Your task to perform on an android device: Show me productivity apps on the Play Store Image 0: 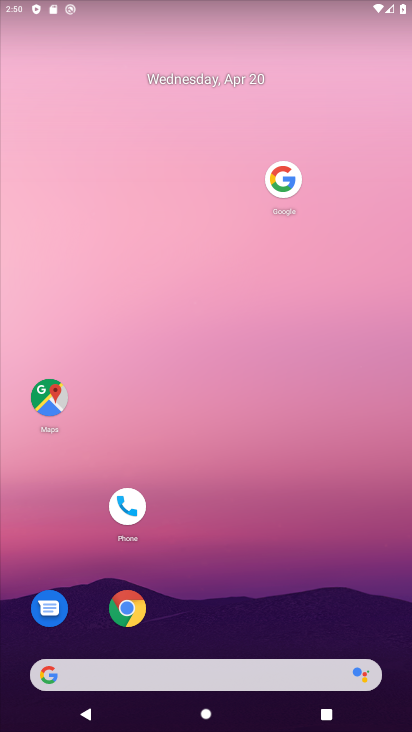
Step 0: drag from (214, 618) to (232, 61)
Your task to perform on an android device: Show me productivity apps on the Play Store Image 1: 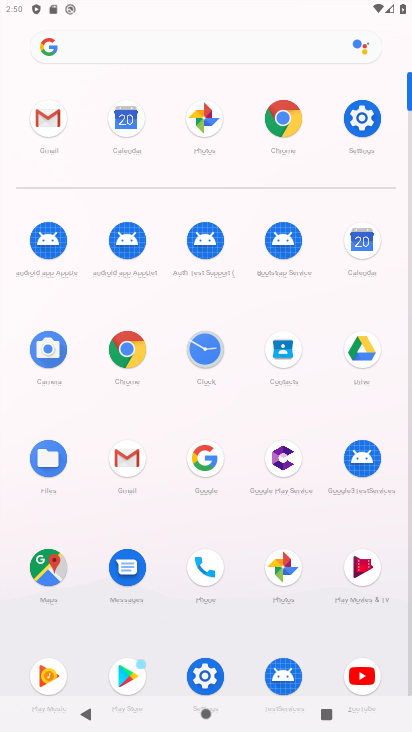
Step 1: click (126, 674)
Your task to perform on an android device: Show me productivity apps on the Play Store Image 2: 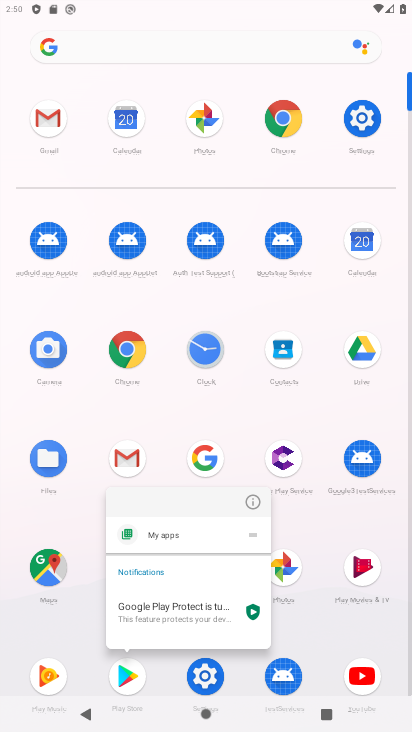
Step 2: click (119, 686)
Your task to perform on an android device: Show me productivity apps on the Play Store Image 3: 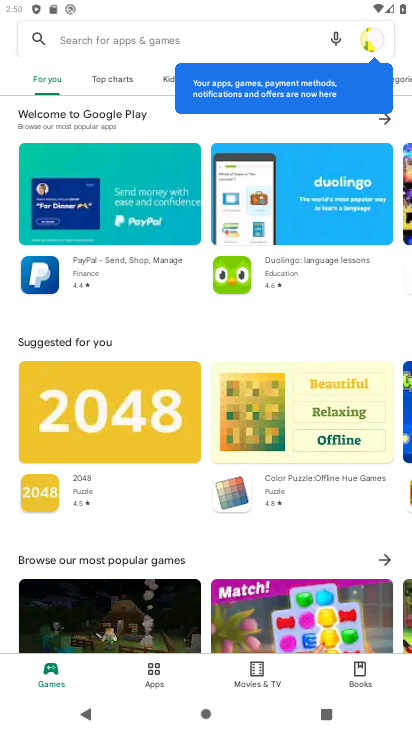
Step 3: click (170, 116)
Your task to perform on an android device: Show me productivity apps on the Play Store Image 4: 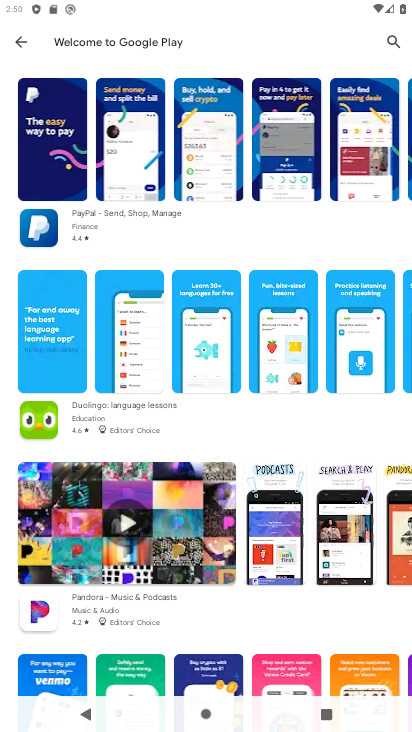
Step 4: click (16, 38)
Your task to perform on an android device: Show me productivity apps on the Play Store Image 5: 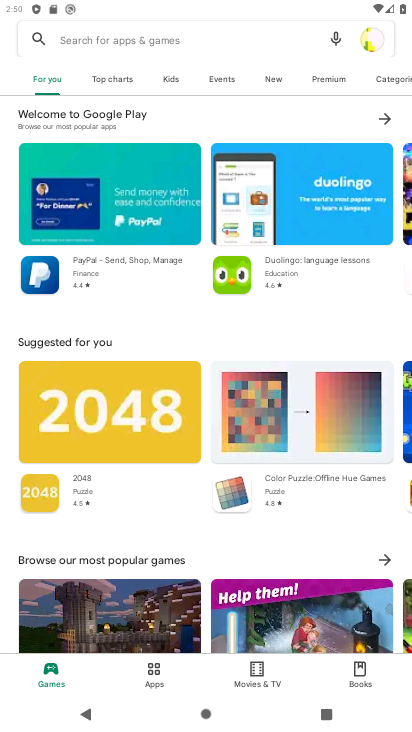
Step 5: click (332, 79)
Your task to perform on an android device: Show me productivity apps on the Play Store Image 6: 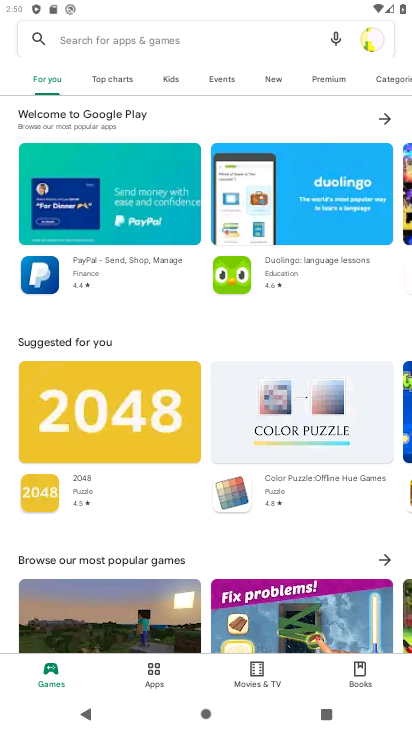
Step 6: drag from (147, 315) to (266, 37)
Your task to perform on an android device: Show me productivity apps on the Play Store Image 7: 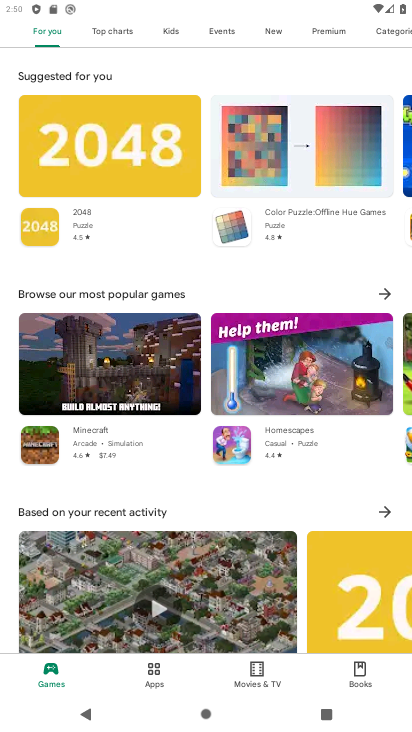
Step 7: drag from (153, 483) to (269, 147)
Your task to perform on an android device: Show me productivity apps on the Play Store Image 8: 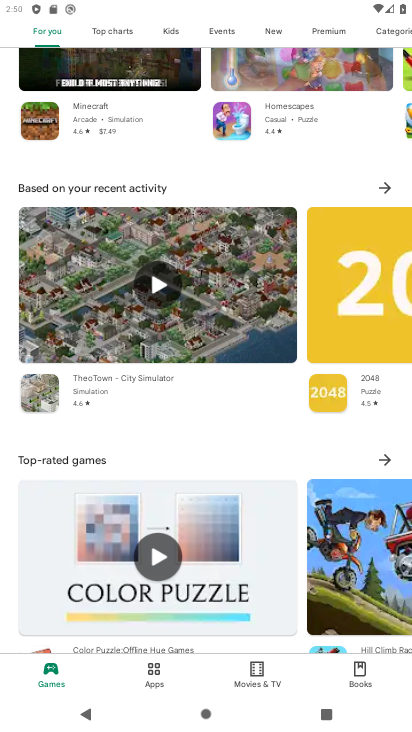
Step 8: drag from (182, 423) to (253, 146)
Your task to perform on an android device: Show me productivity apps on the Play Store Image 9: 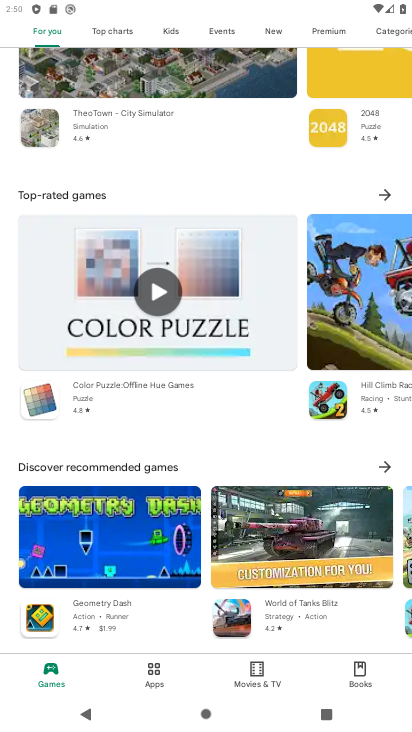
Step 9: drag from (223, 334) to (253, 233)
Your task to perform on an android device: Show me productivity apps on the Play Store Image 10: 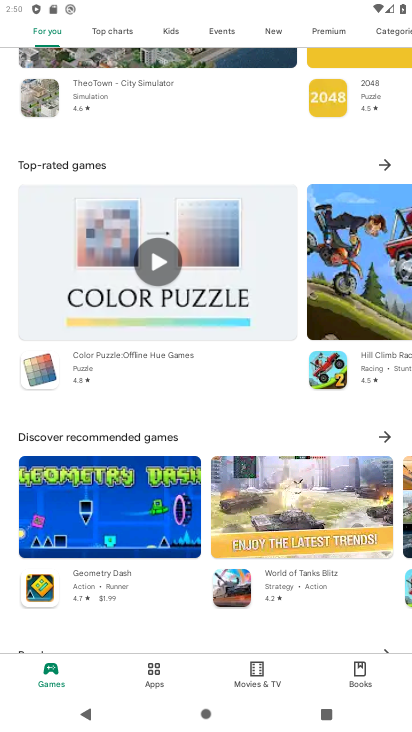
Step 10: drag from (114, 626) to (177, 343)
Your task to perform on an android device: Show me productivity apps on the Play Store Image 11: 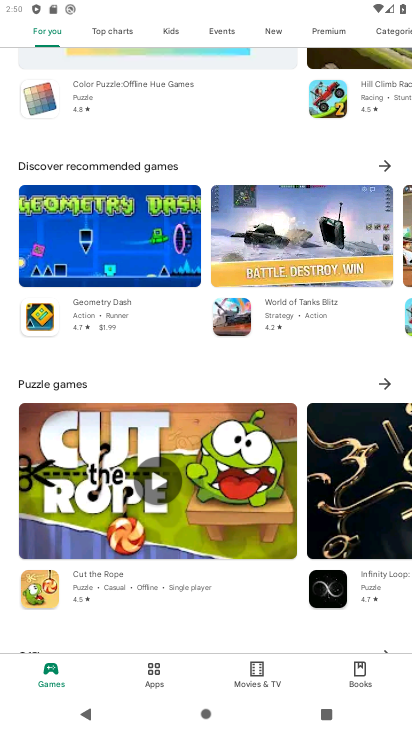
Step 11: drag from (149, 612) to (224, 277)
Your task to perform on an android device: Show me productivity apps on the Play Store Image 12: 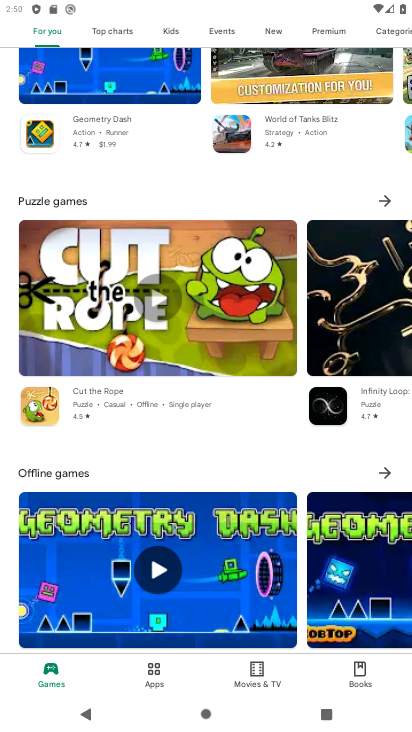
Step 12: drag from (217, 446) to (253, 188)
Your task to perform on an android device: Show me productivity apps on the Play Store Image 13: 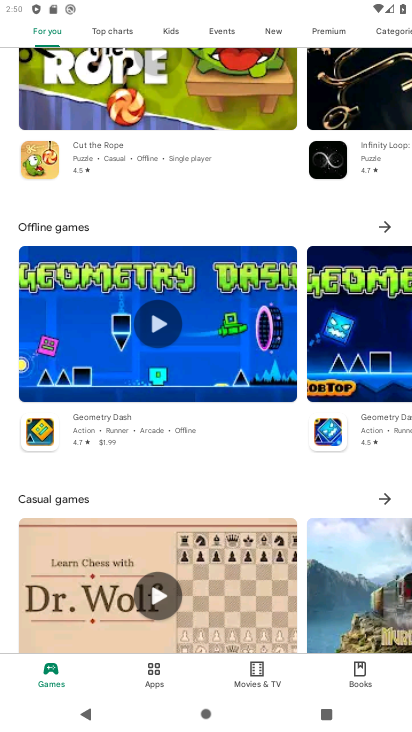
Step 13: drag from (190, 487) to (248, 132)
Your task to perform on an android device: Show me productivity apps on the Play Store Image 14: 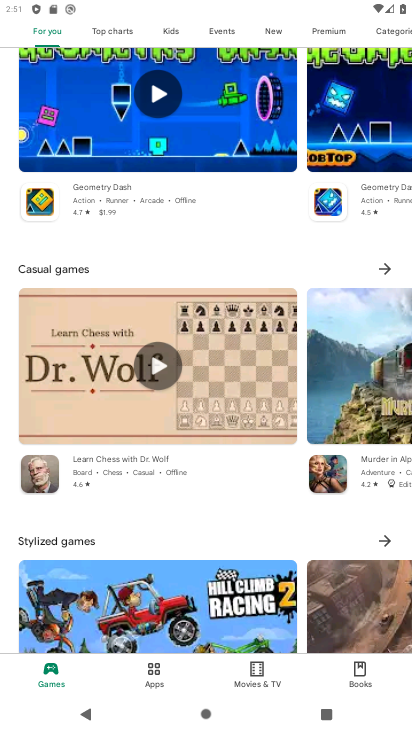
Step 14: drag from (112, 536) to (197, 215)
Your task to perform on an android device: Show me productivity apps on the Play Store Image 15: 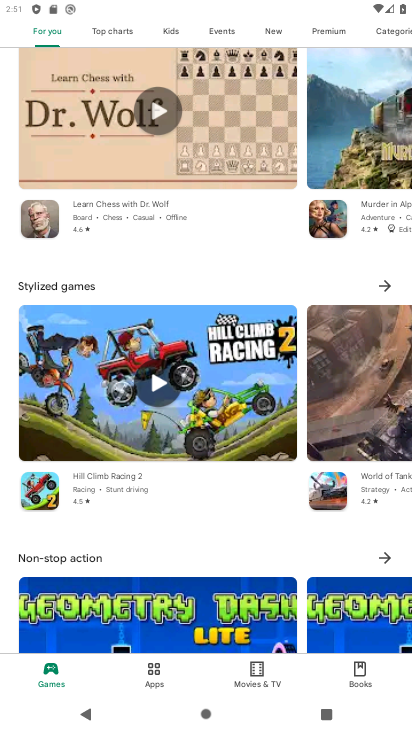
Step 15: drag from (170, 540) to (251, 203)
Your task to perform on an android device: Show me productivity apps on the Play Store Image 16: 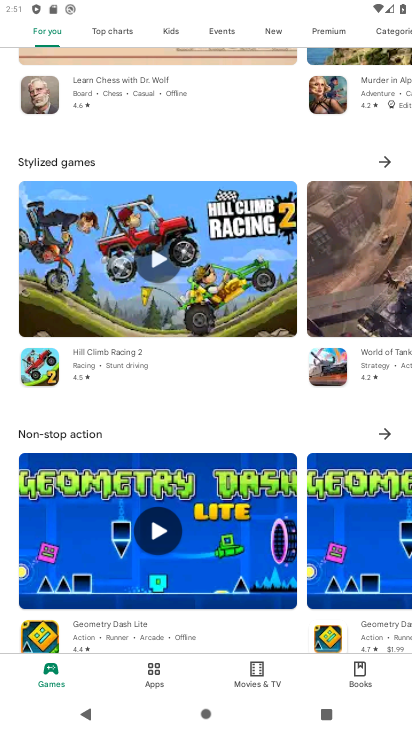
Step 16: drag from (218, 646) to (213, 273)
Your task to perform on an android device: Show me productivity apps on the Play Store Image 17: 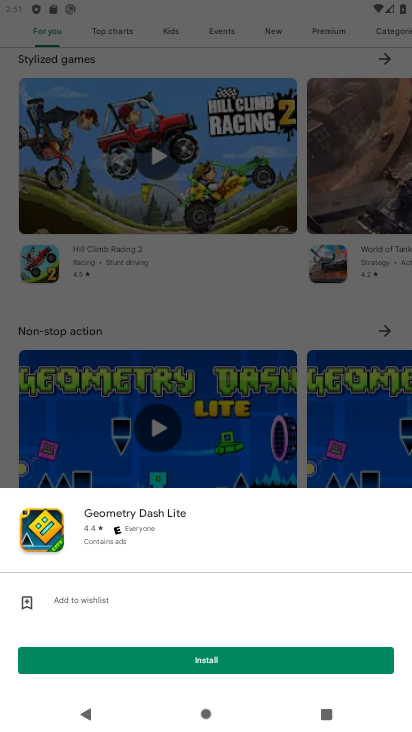
Step 17: click (215, 294)
Your task to perform on an android device: Show me productivity apps on the Play Store Image 18: 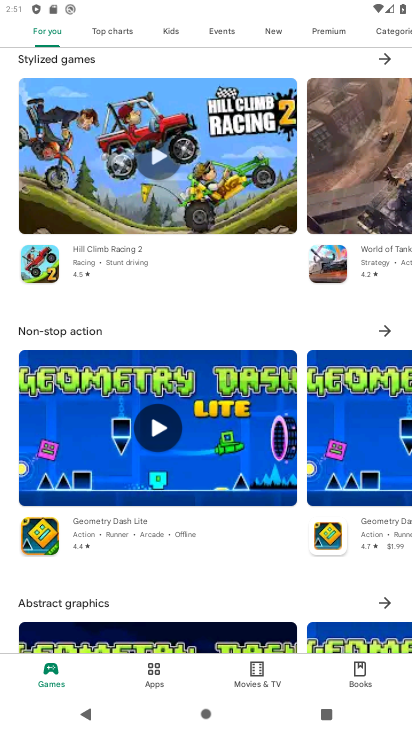
Step 18: drag from (183, 595) to (199, 247)
Your task to perform on an android device: Show me productivity apps on the Play Store Image 19: 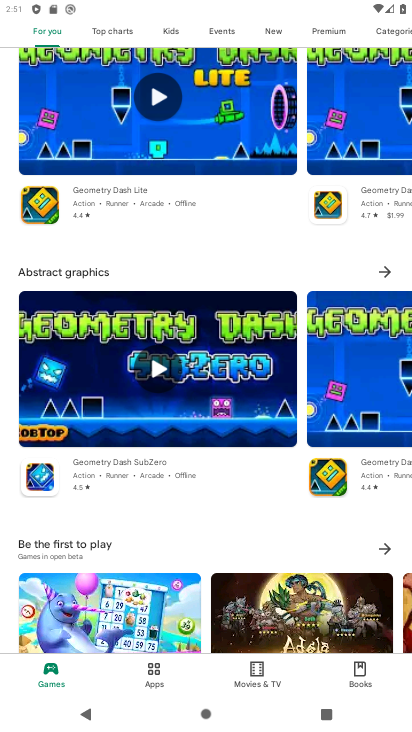
Step 19: drag from (186, 543) to (190, 216)
Your task to perform on an android device: Show me productivity apps on the Play Store Image 20: 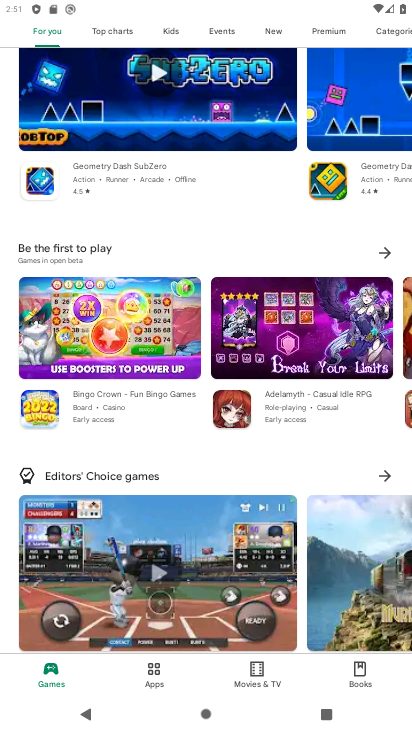
Step 20: drag from (226, 470) to (164, 668)
Your task to perform on an android device: Show me productivity apps on the Play Store Image 21: 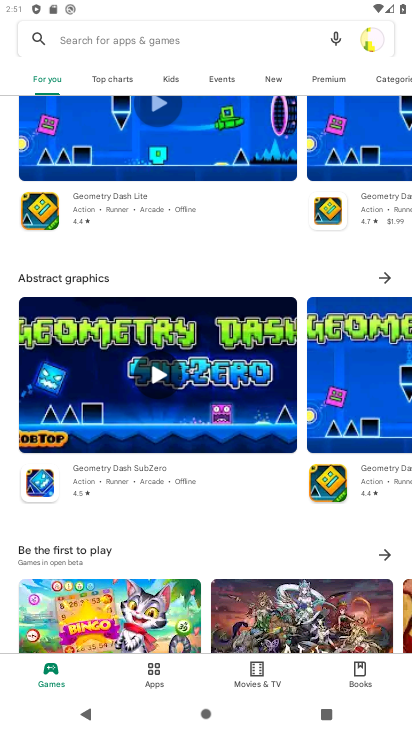
Step 21: drag from (223, 268) to (140, 600)
Your task to perform on an android device: Show me productivity apps on the Play Store Image 22: 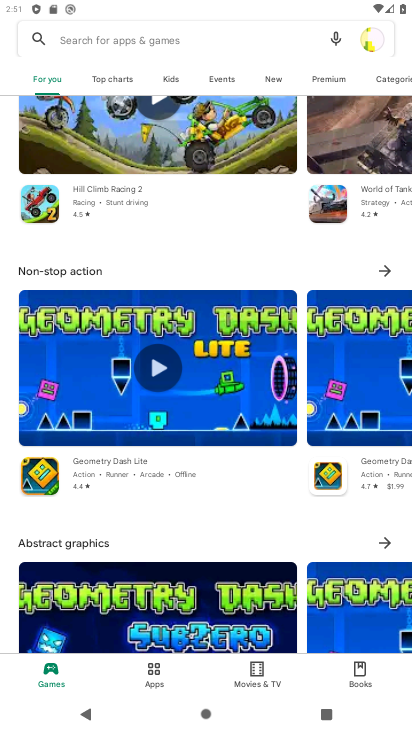
Step 22: drag from (196, 269) to (91, 604)
Your task to perform on an android device: Show me productivity apps on the Play Store Image 23: 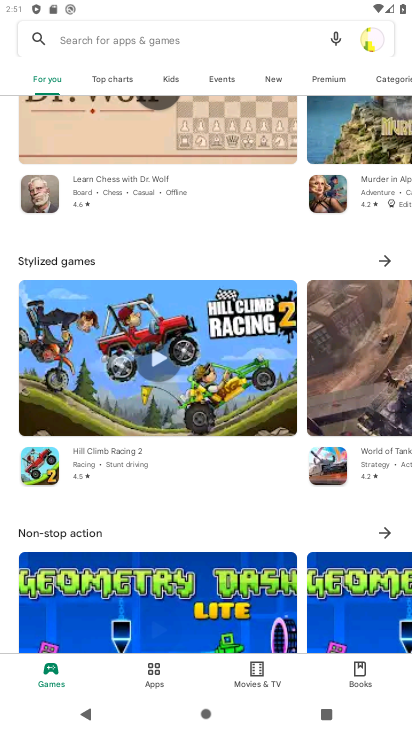
Step 23: drag from (210, 301) to (217, 697)
Your task to perform on an android device: Show me productivity apps on the Play Store Image 24: 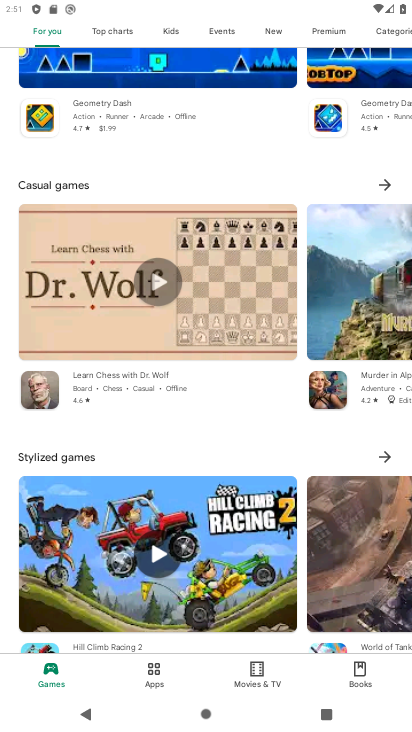
Step 24: drag from (225, 163) to (172, 569)
Your task to perform on an android device: Show me productivity apps on the Play Store Image 25: 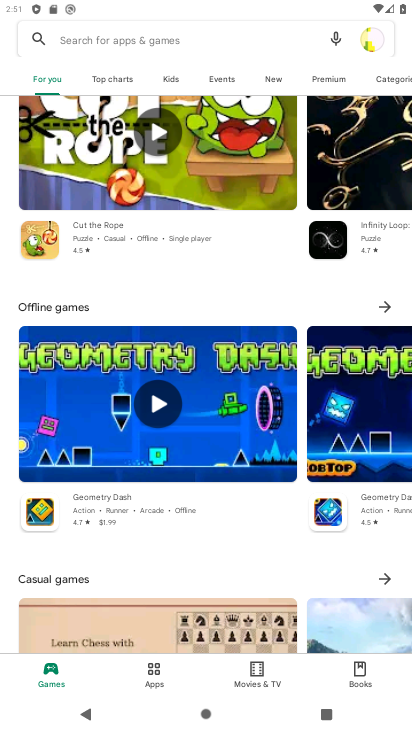
Step 25: drag from (201, 278) to (196, 730)
Your task to perform on an android device: Show me productivity apps on the Play Store Image 26: 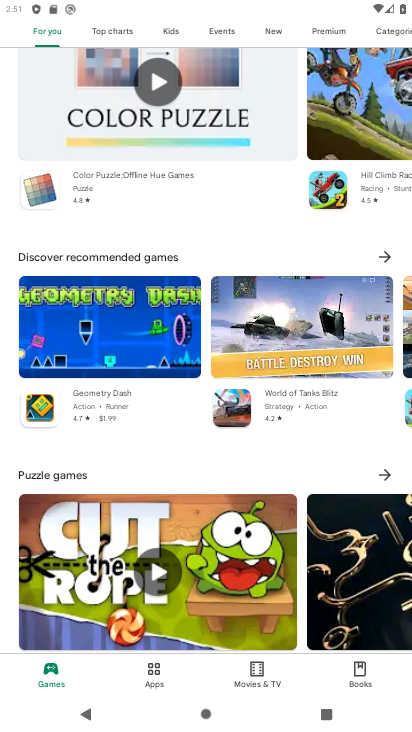
Step 26: drag from (232, 264) to (225, 662)
Your task to perform on an android device: Show me productivity apps on the Play Store Image 27: 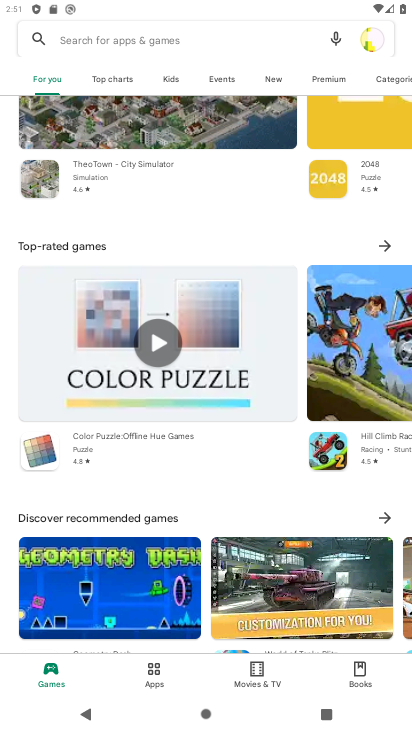
Step 27: click (391, 77)
Your task to perform on an android device: Show me productivity apps on the Play Store Image 28: 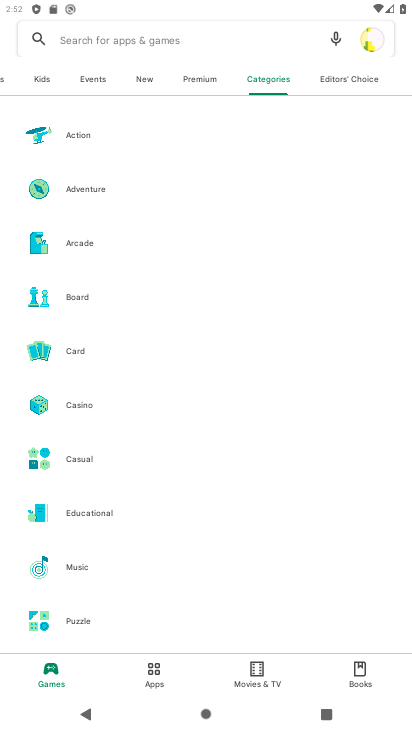
Step 28: click (351, 80)
Your task to perform on an android device: Show me productivity apps on the Play Store Image 29: 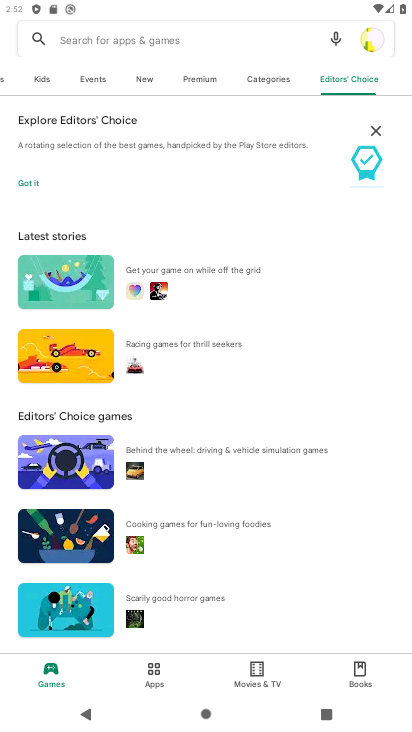
Step 29: click (284, 76)
Your task to perform on an android device: Show me productivity apps on the Play Store Image 30: 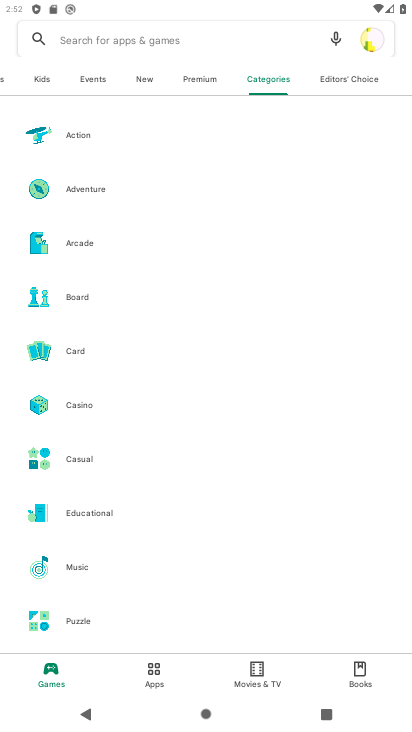
Step 30: click (91, 182)
Your task to perform on an android device: Show me productivity apps on the Play Store Image 31: 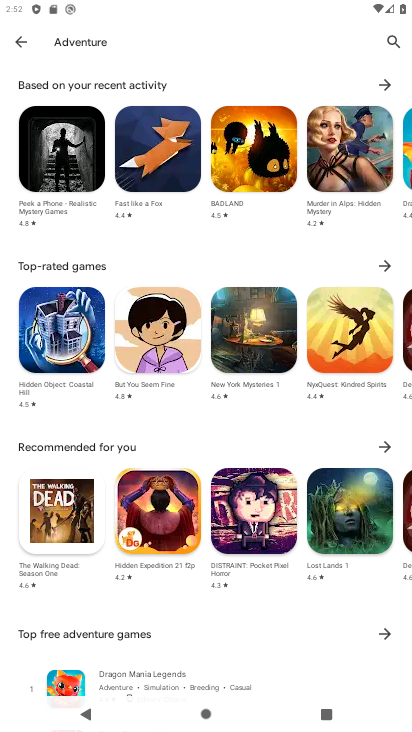
Step 31: click (24, 42)
Your task to perform on an android device: Show me productivity apps on the Play Store Image 32: 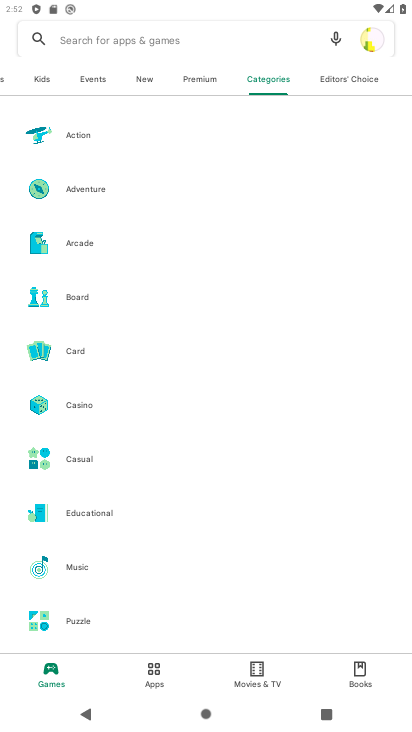
Step 32: drag from (55, 86) to (363, 82)
Your task to perform on an android device: Show me productivity apps on the Play Store Image 33: 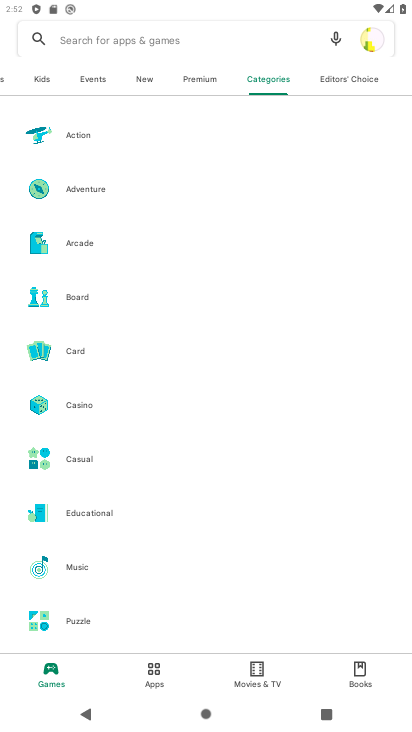
Step 33: drag from (35, 83) to (366, 61)
Your task to perform on an android device: Show me productivity apps on the Play Store Image 34: 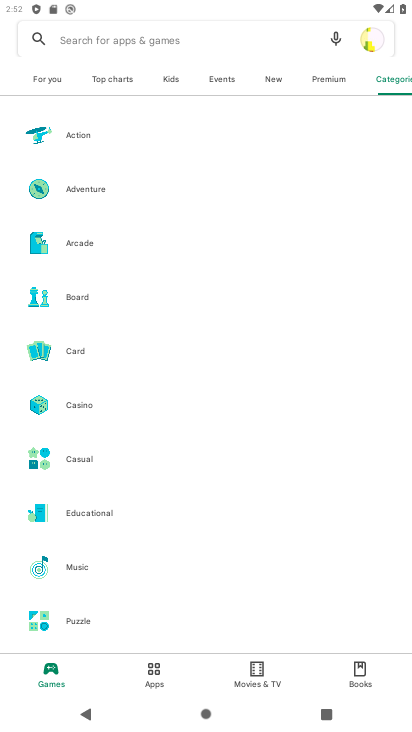
Step 34: click (46, 79)
Your task to perform on an android device: Show me productivity apps on the Play Store Image 35: 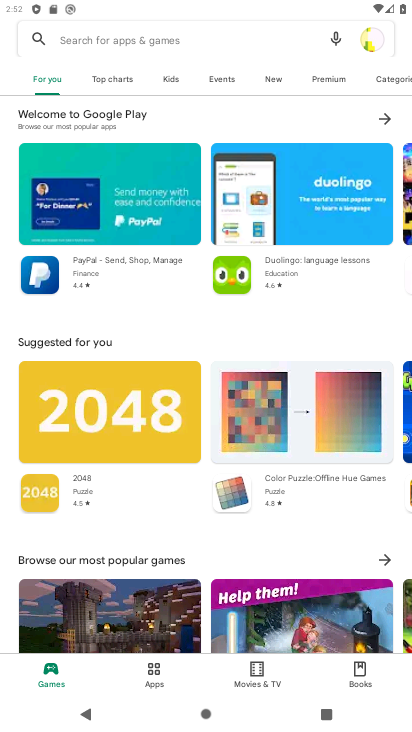
Step 35: task complete